Your task to perform on an android device: star an email in the gmail app Image 0: 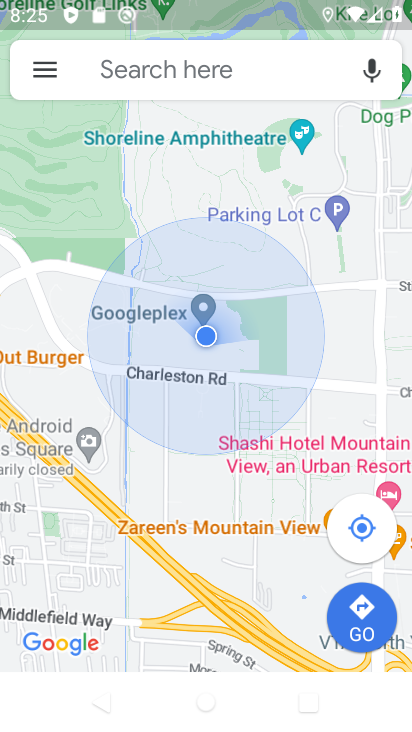
Step 0: press home button
Your task to perform on an android device: star an email in the gmail app Image 1: 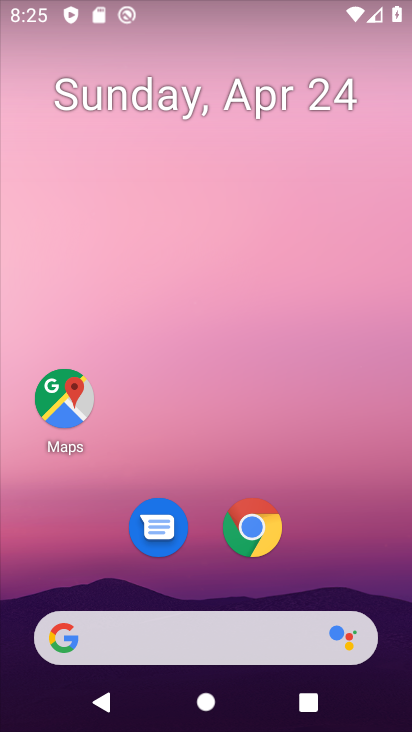
Step 1: drag from (345, 547) to (242, 38)
Your task to perform on an android device: star an email in the gmail app Image 2: 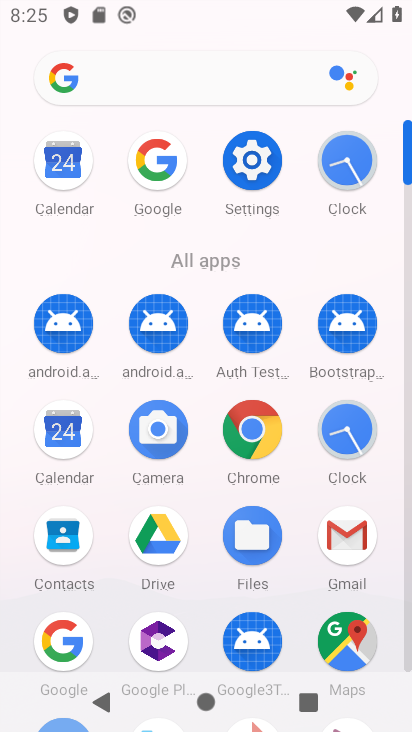
Step 2: click (356, 524)
Your task to perform on an android device: star an email in the gmail app Image 3: 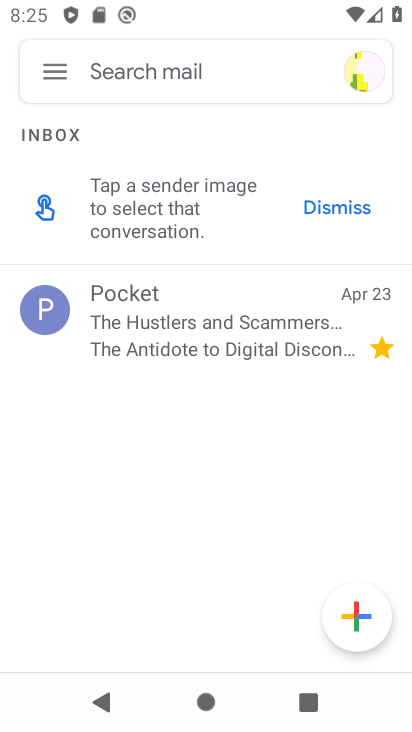
Step 3: task complete